Your task to perform on an android device: read, delete, or share a saved page in the chrome app Image 0: 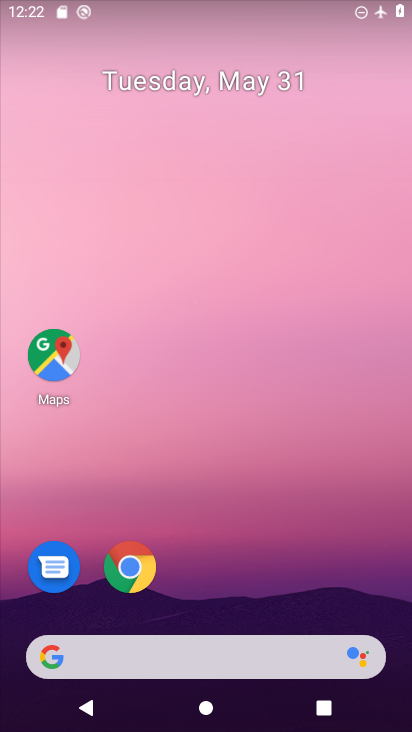
Step 0: click (149, 576)
Your task to perform on an android device: read, delete, or share a saved page in the chrome app Image 1: 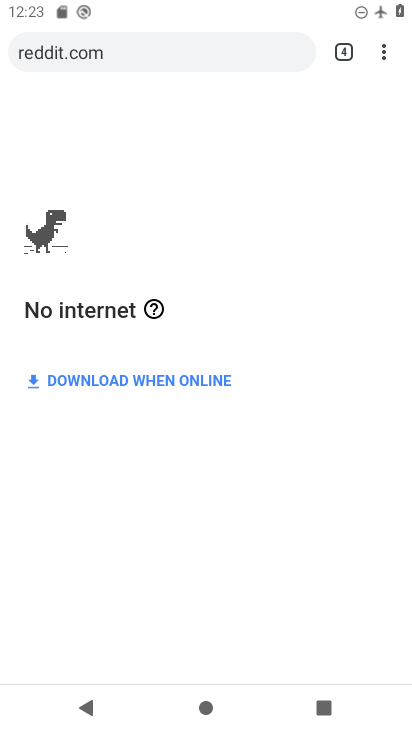
Step 1: click (383, 43)
Your task to perform on an android device: read, delete, or share a saved page in the chrome app Image 2: 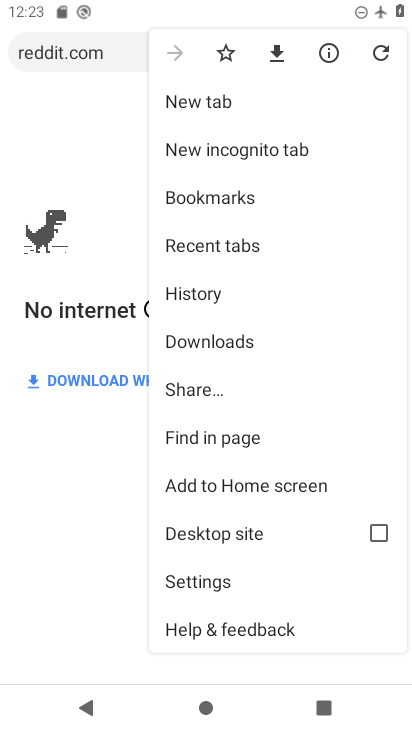
Step 2: click (228, 332)
Your task to perform on an android device: read, delete, or share a saved page in the chrome app Image 3: 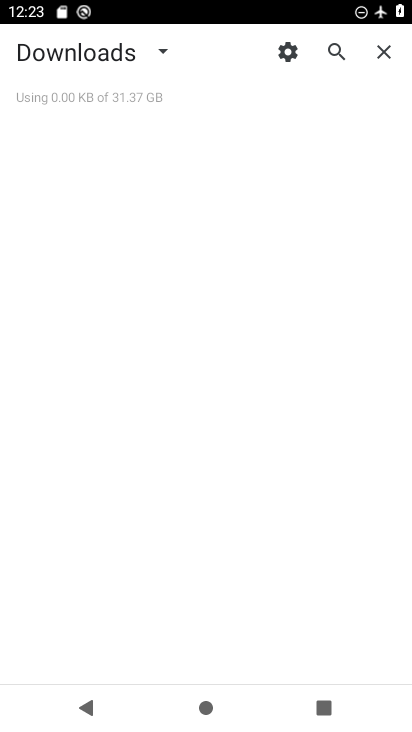
Step 3: click (109, 51)
Your task to perform on an android device: read, delete, or share a saved page in the chrome app Image 4: 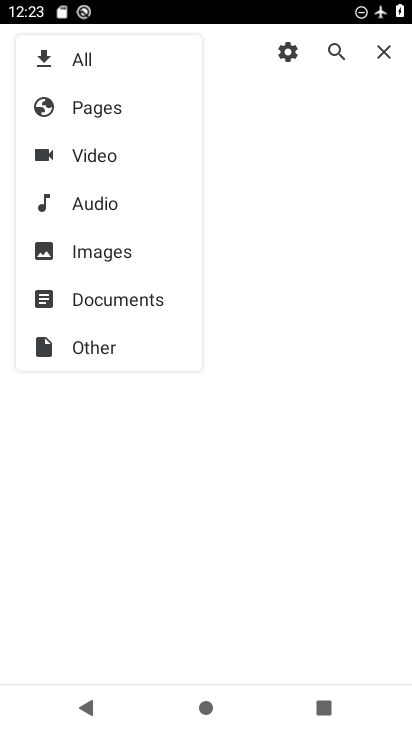
Step 4: click (103, 94)
Your task to perform on an android device: read, delete, or share a saved page in the chrome app Image 5: 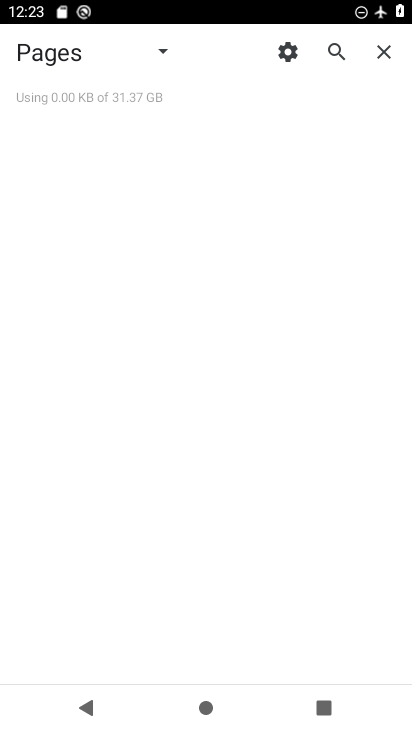
Step 5: task complete